Your task to perform on an android device: Open privacy settings Image 0: 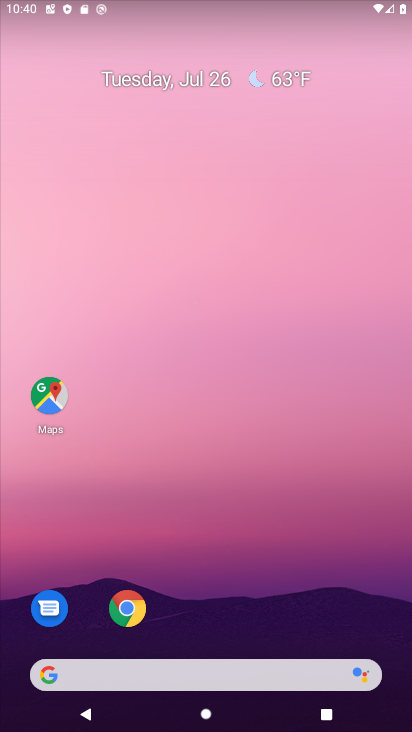
Step 0: press home button
Your task to perform on an android device: Open privacy settings Image 1: 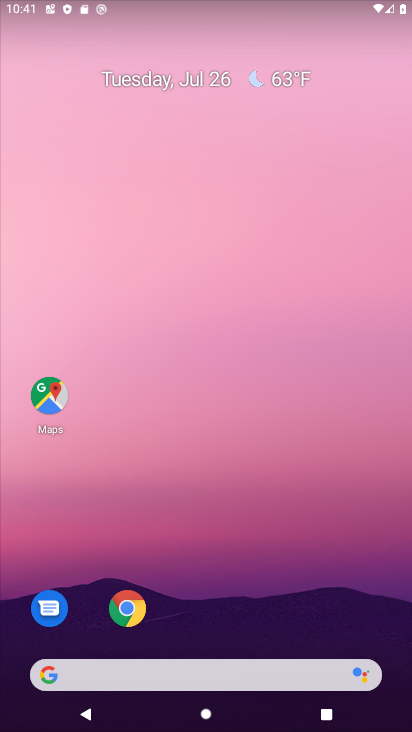
Step 1: drag from (220, 631) to (283, 120)
Your task to perform on an android device: Open privacy settings Image 2: 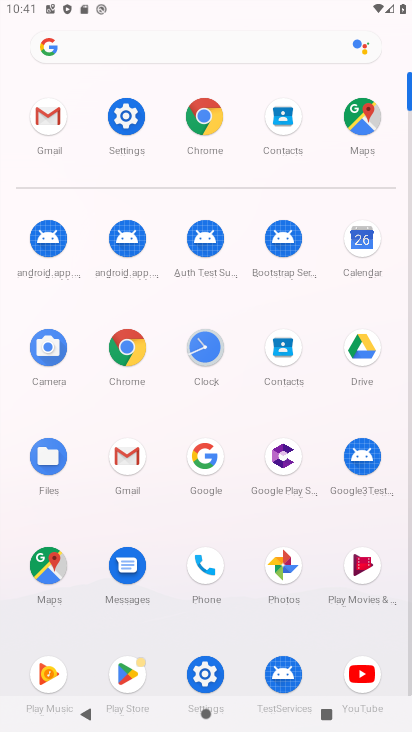
Step 2: click (124, 114)
Your task to perform on an android device: Open privacy settings Image 3: 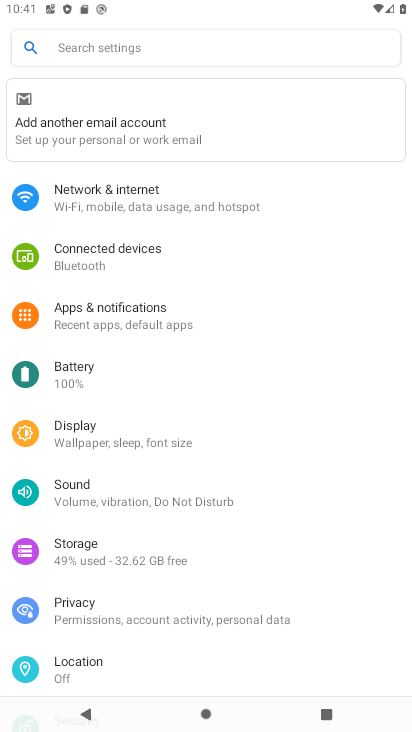
Step 3: click (72, 608)
Your task to perform on an android device: Open privacy settings Image 4: 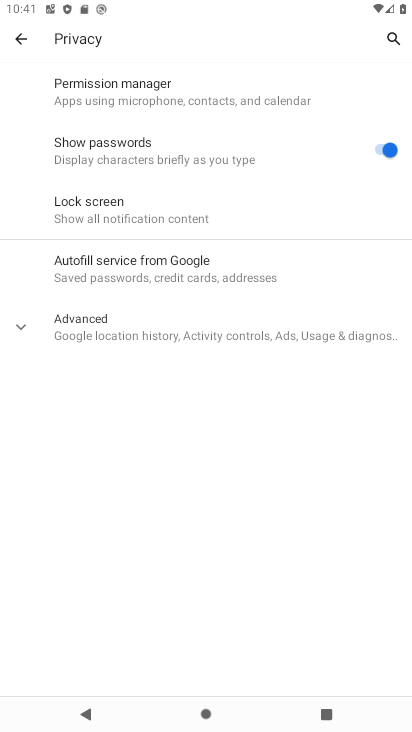
Step 4: task complete